Your task to perform on an android device: open a bookmark in the chrome app Image 0: 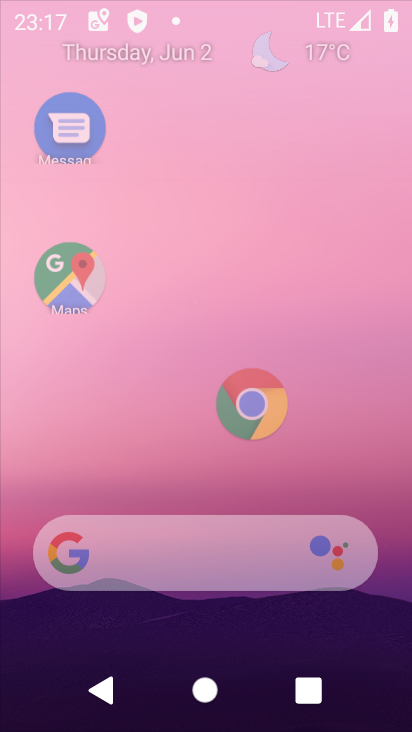
Step 0: press home button
Your task to perform on an android device: open a bookmark in the chrome app Image 1: 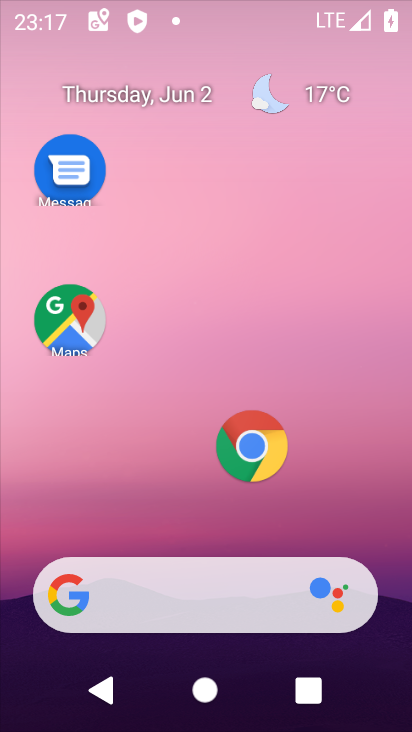
Step 1: drag from (305, 489) to (265, 27)
Your task to perform on an android device: open a bookmark in the chrome app Image 2: 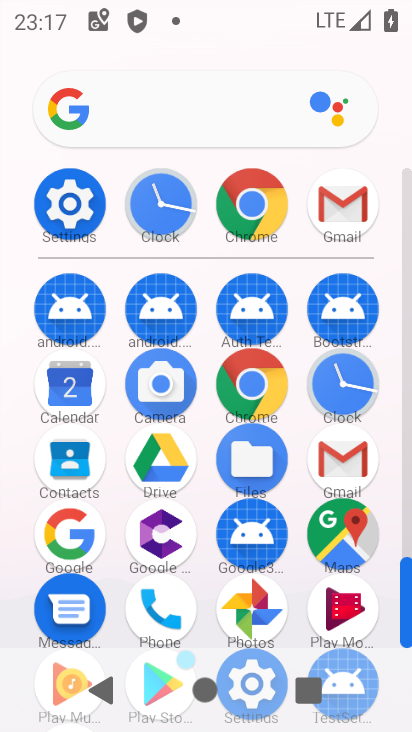
Step 2: click (263, 387)
Your task to perform on an android device: open a bookmark in the chrome app Image 3: 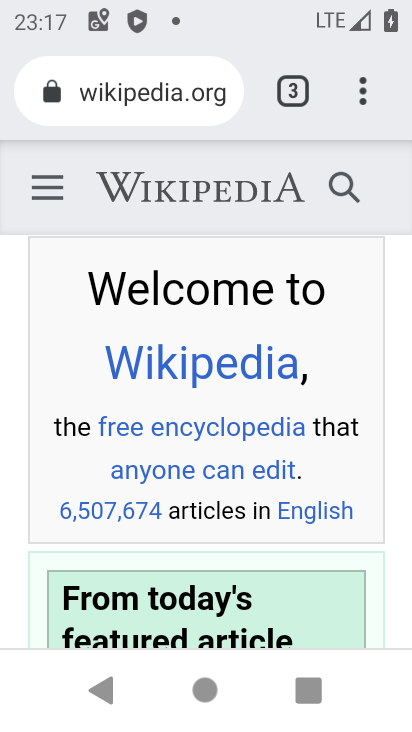
Step 3: task complete